Your task to perform on an android device: What's the weather going to be tomorrow? Image 0: 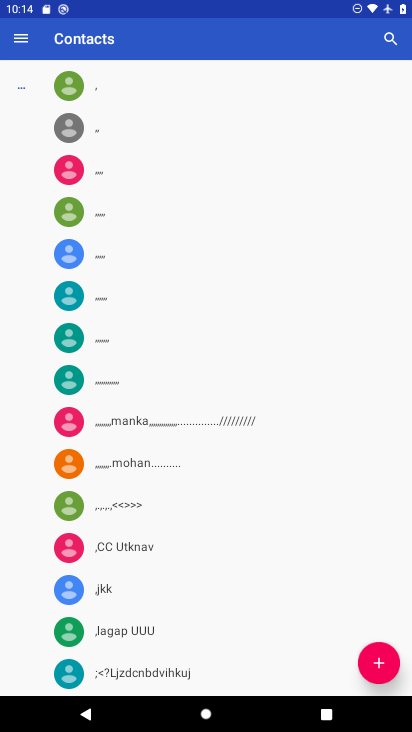
Step 0: press home button
Your task to perform on an android device: What's the weather going to be tomorrow? Image 1: 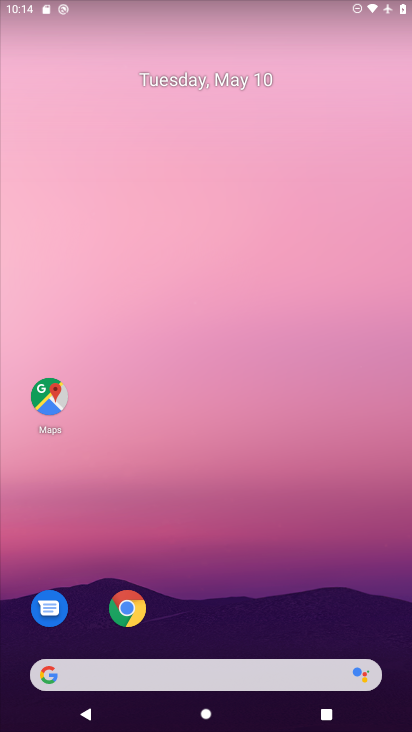
Step 1: drag from (221, 596) to (243, 245)
Your task to perform on an android device: What's the weather going to be tomorrow? Image 2: 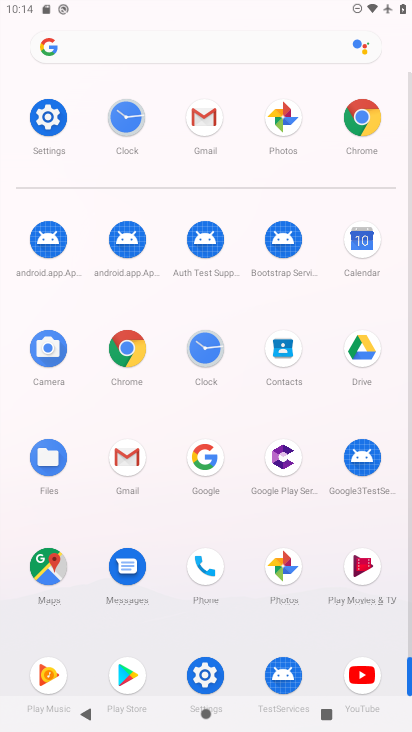
Step 2: click (355, 115)
Your task to perform on an android device: What's the weather going to be tomorrow? Image 3: 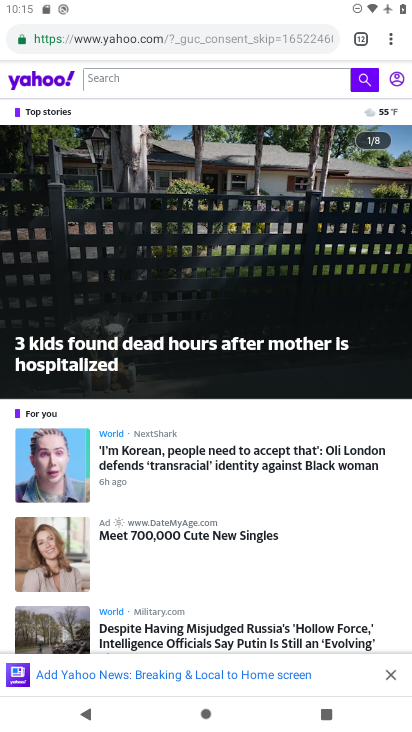
Step 3: click (380, 37)
Your task to perform on an android device: What's the weather going to be tomorrow? Image 4: 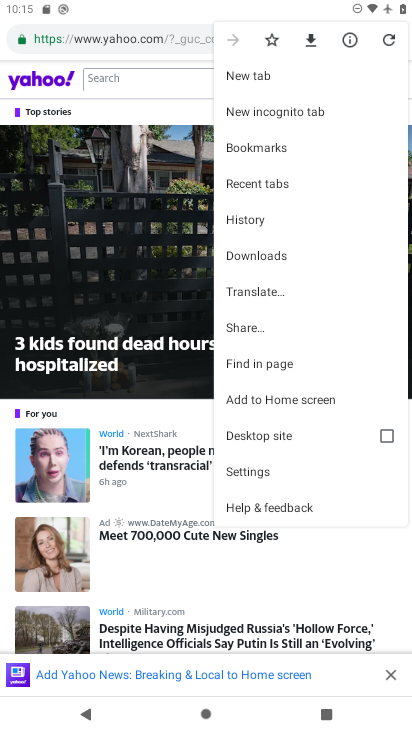
Step 4: click (261, 81)
Your task to perform on an android device: What's the weather going to be tomorrow? Image 5: 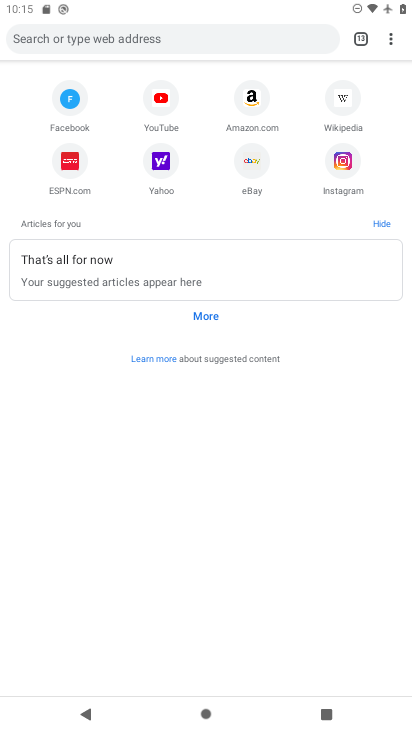
Step 5: click (226, 24)
Your task to perform on an android device: What's the weather going to be tomorrow? Image 6: 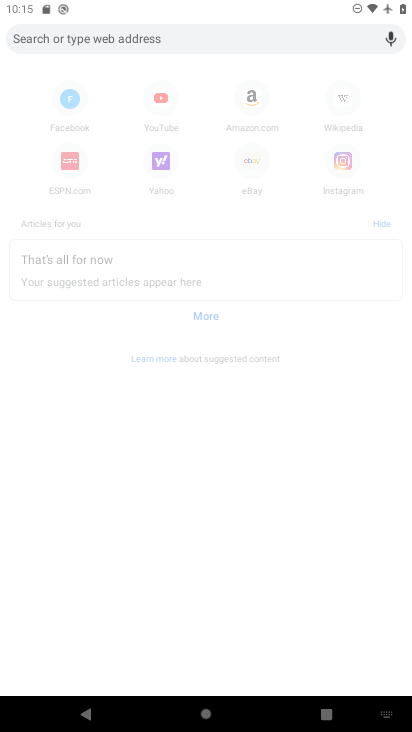
Step 6: type "What's the weather going to be tomorrow?"
Your task to perform on an android device: What's the weather going to be tomorrow? Image 7: 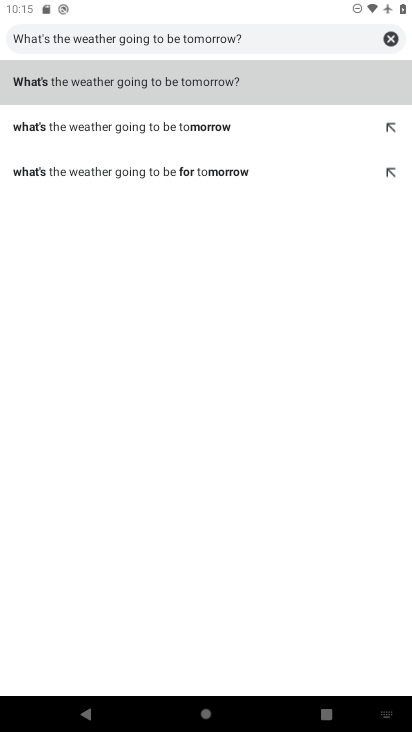
Step 7: click (204, 81)
Your task to perform on an android device: What's the weather going to be tomorrow? Image 8: 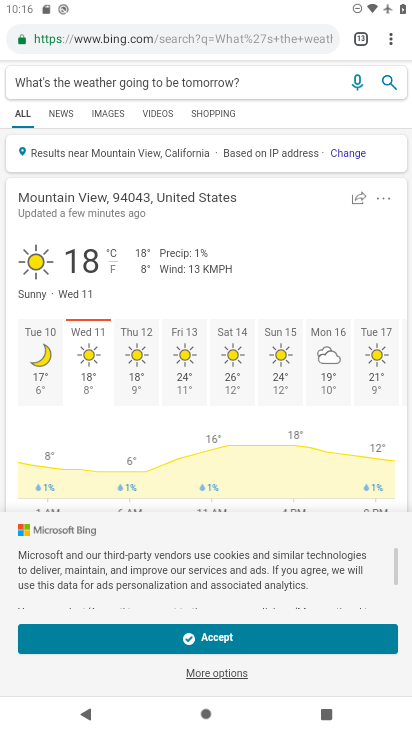
Step 8: task complete